Your task to perform on an android device: open a bookmark in the chrome app Image 0: 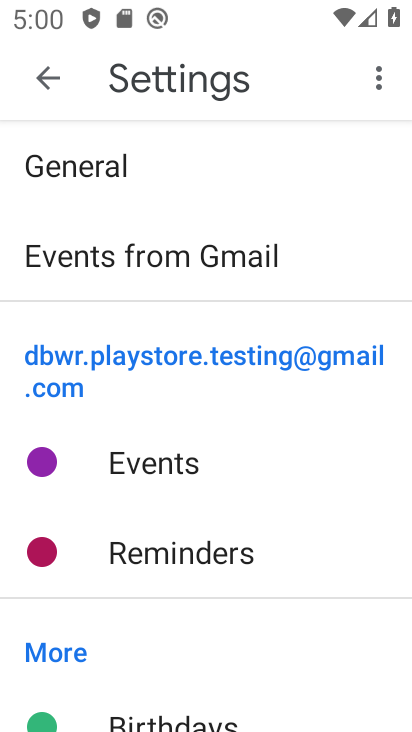
Step 0: press back button
Your task to perform on an android device: open a bookmark in the chrome app Image 1: 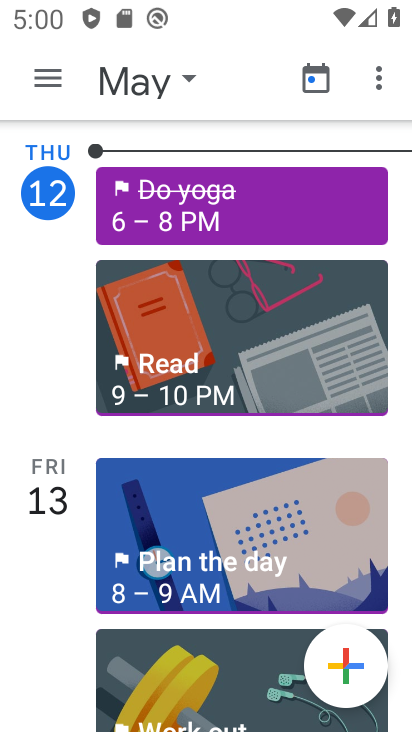
Step 1: press home button
Your task to perform on an android device: open a bookmark in the chrome app Image 2: 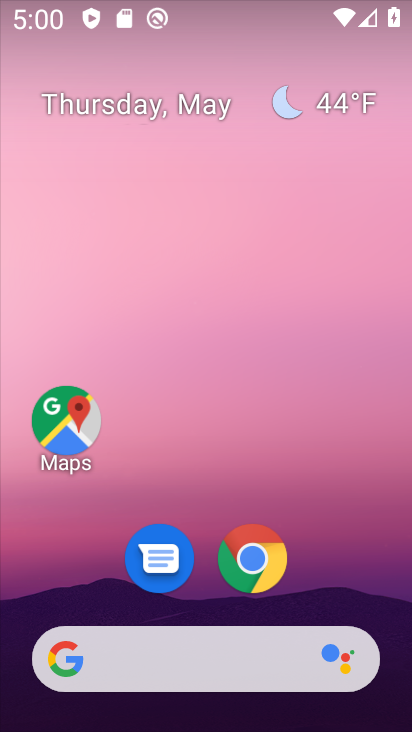
Step 2: drag from (312, 576) to (250, 35)
Your task to perform on an android device: open a bookmark in the chrome app Image 3: 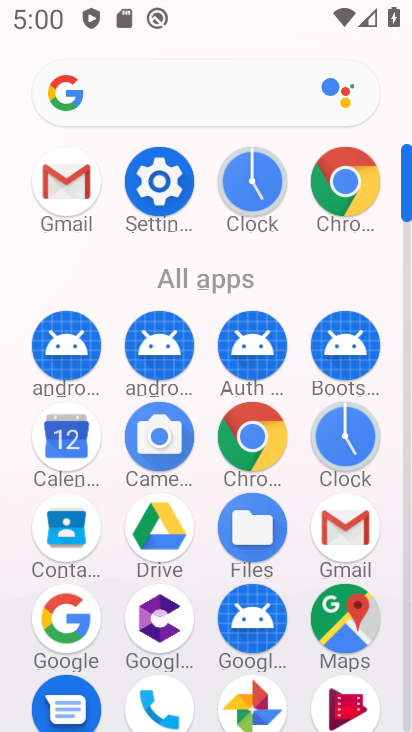
Step 3: click (254, 437)
Your task to perform on an android device: open a bookmark in the chrome app Image 4: 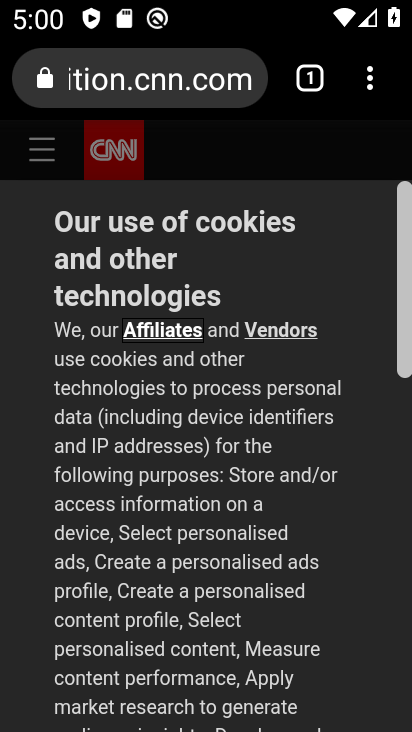
Step 4: task complete